Your task to perform on an android device: Is it going to rain this weekend? Image 0: 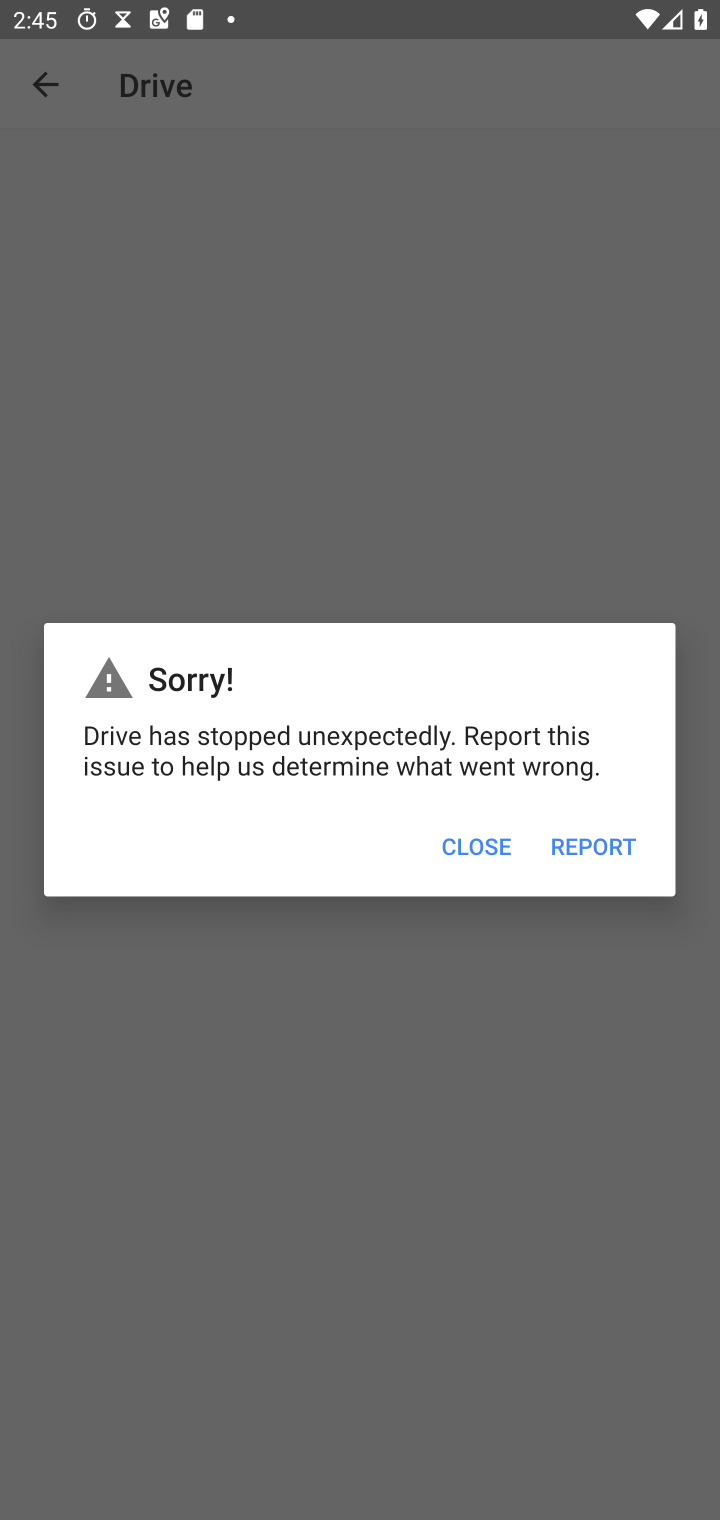
Step 0: press home button
Your task to perform on an android device: Is it going to rain this weekend? Image 1: 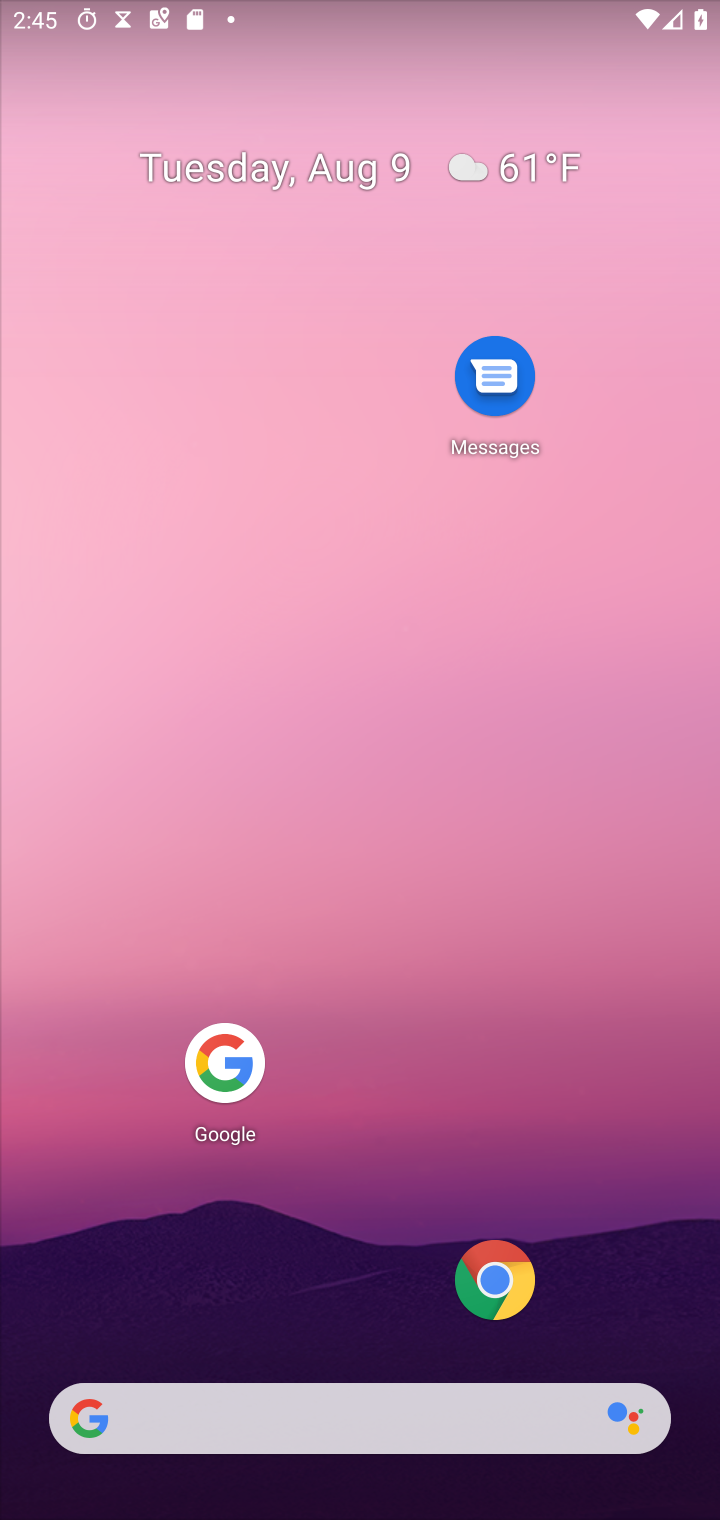
Step 1: click (252, 1412)
Your task to perform on an android device: Is it going to rain this weekend? Image 2: 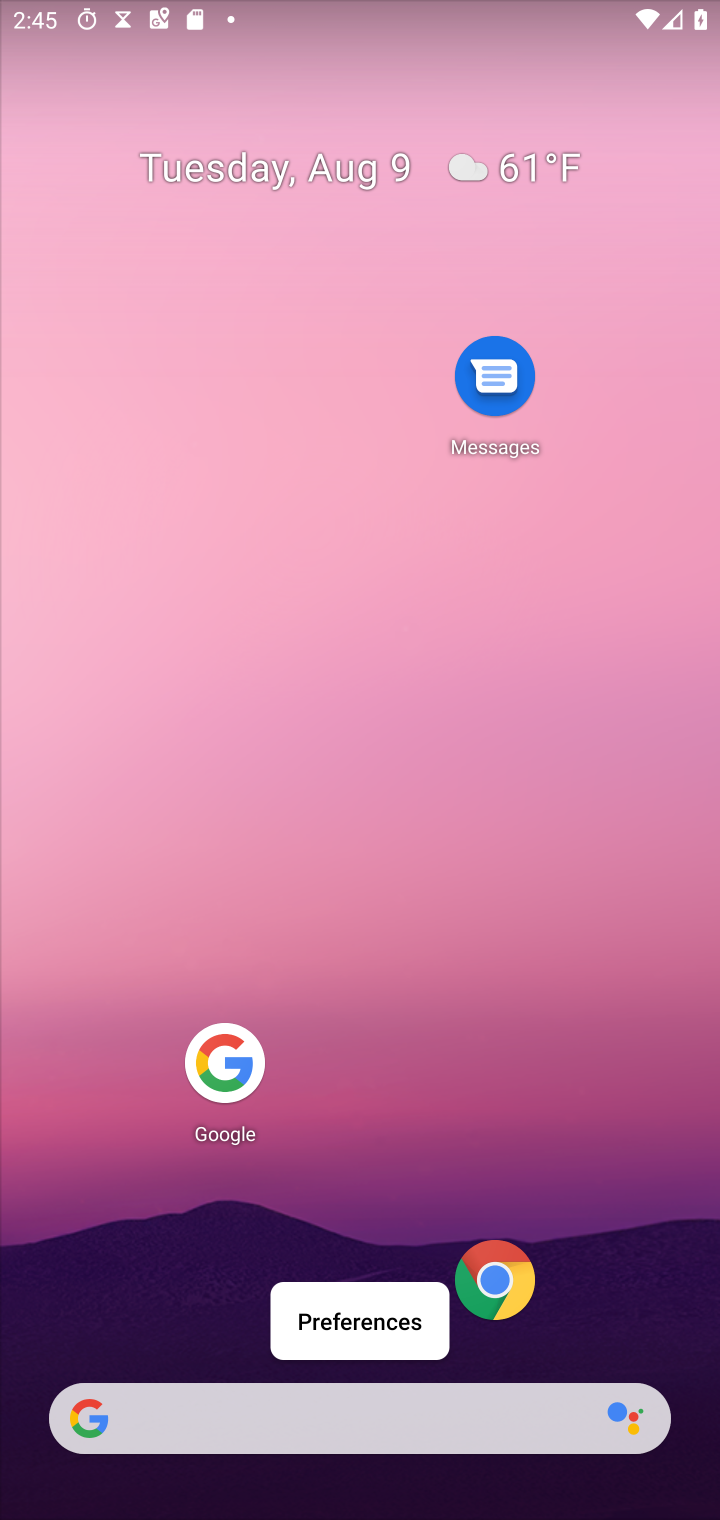
Step 2: click (280, 1419)
Your task to perform on an android device: Is it going to rain this weekend? Image 3: 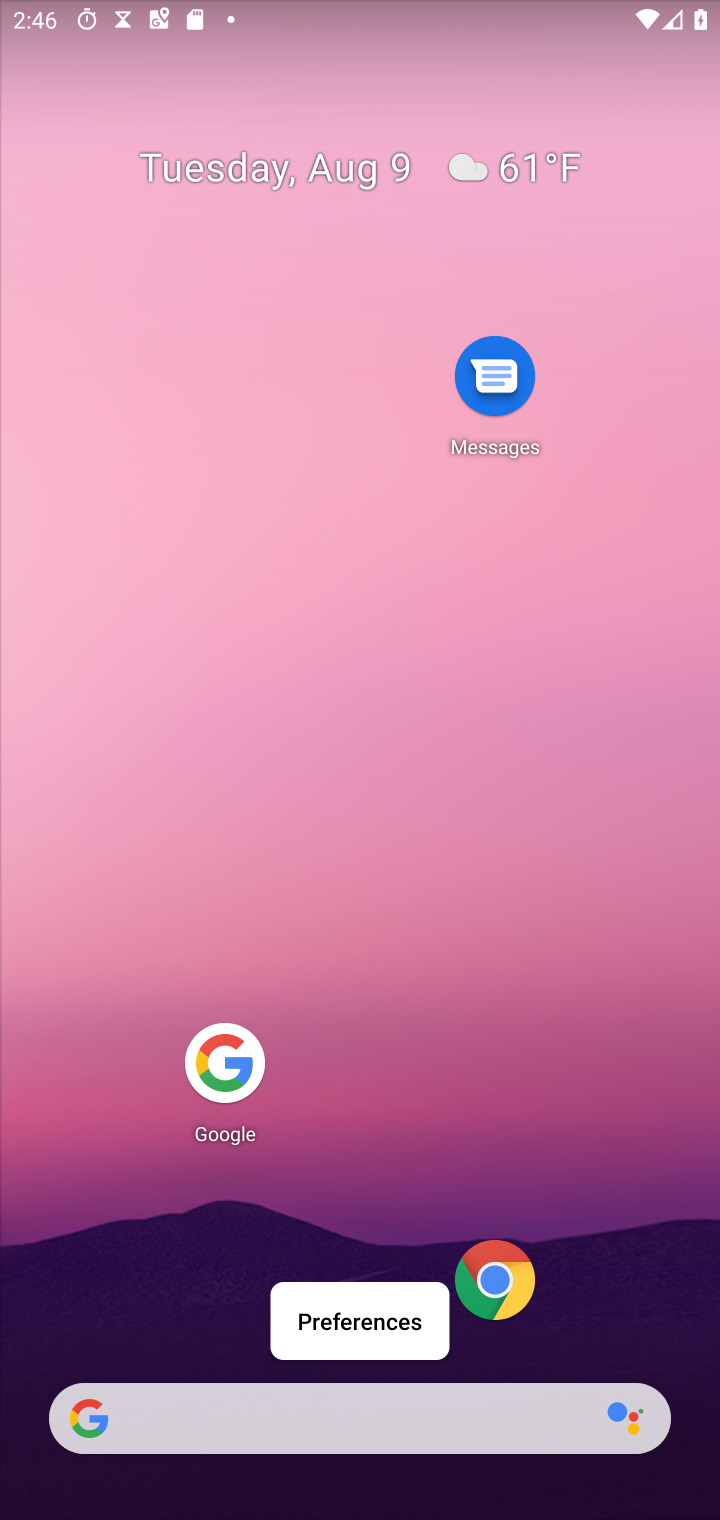
Step 3: click (283, 1401)
Your task to perform on an android device: Is it going to rain this weekend? Image 4: 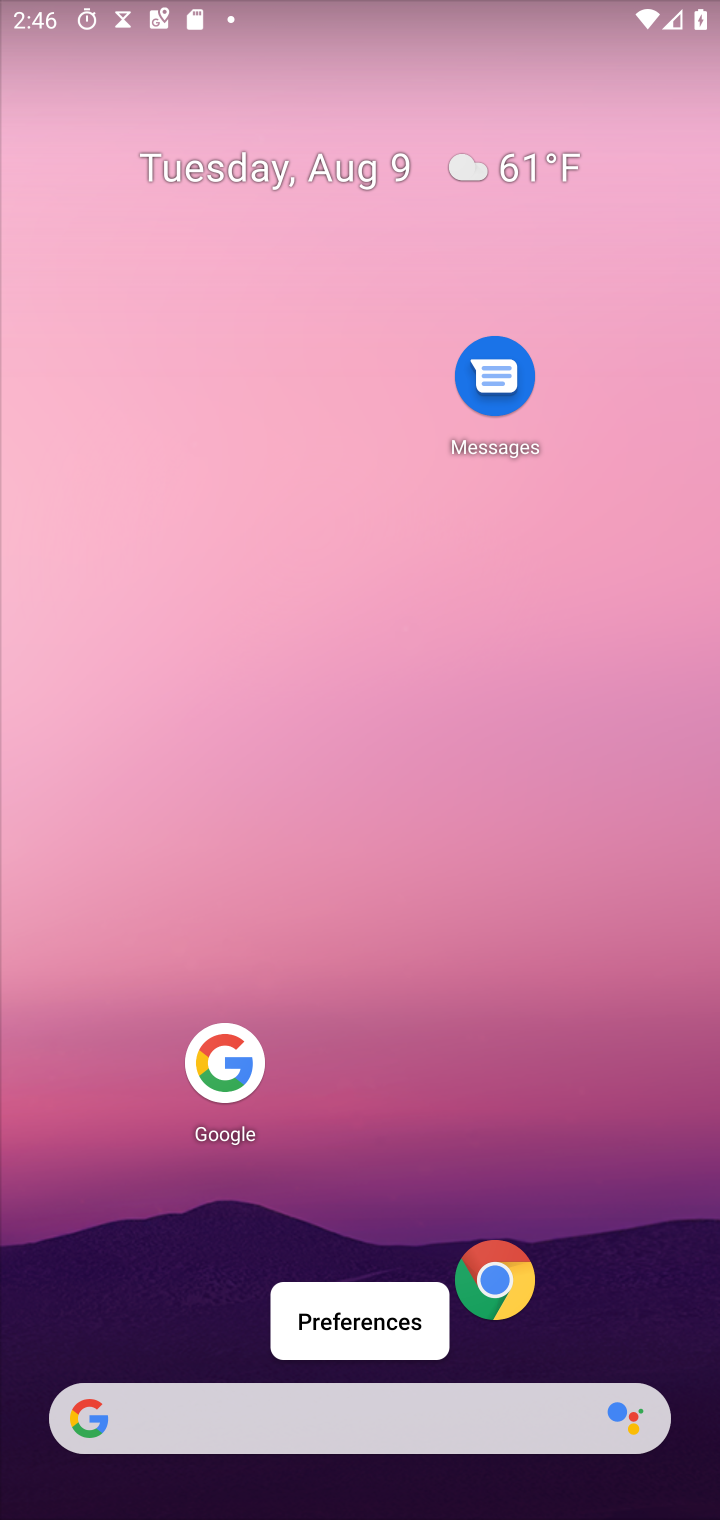
Step 4: click (289, 1402)
Your task to perform on an android device: Is it going to rain this weekend? Image 5: 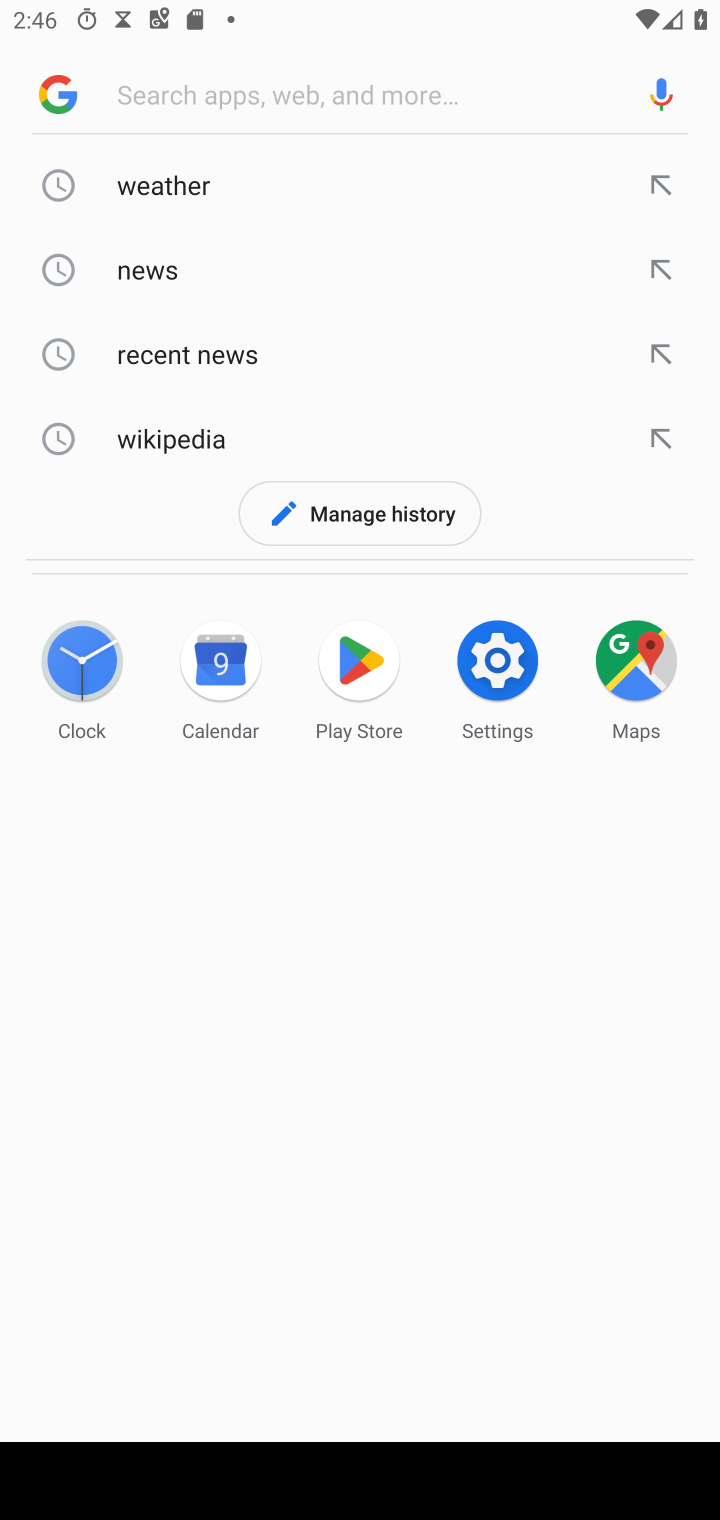
Step 5: click (222, 177)
Your task to perform on an android device: Is it going to rain this weekend? Image 6: 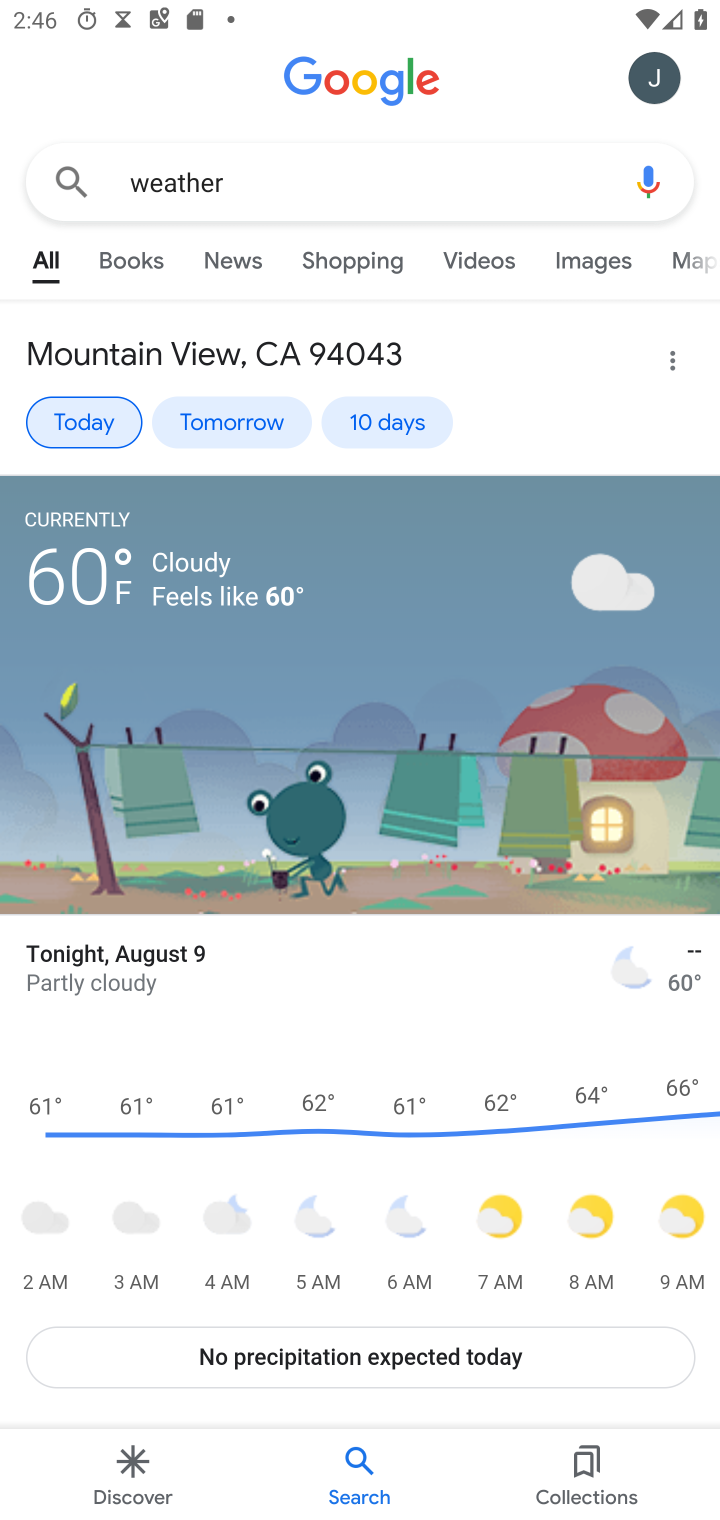
Step 6: click (409, 418)
Your task to perform on an android device: Is it going to rain this weekend? Image 7: 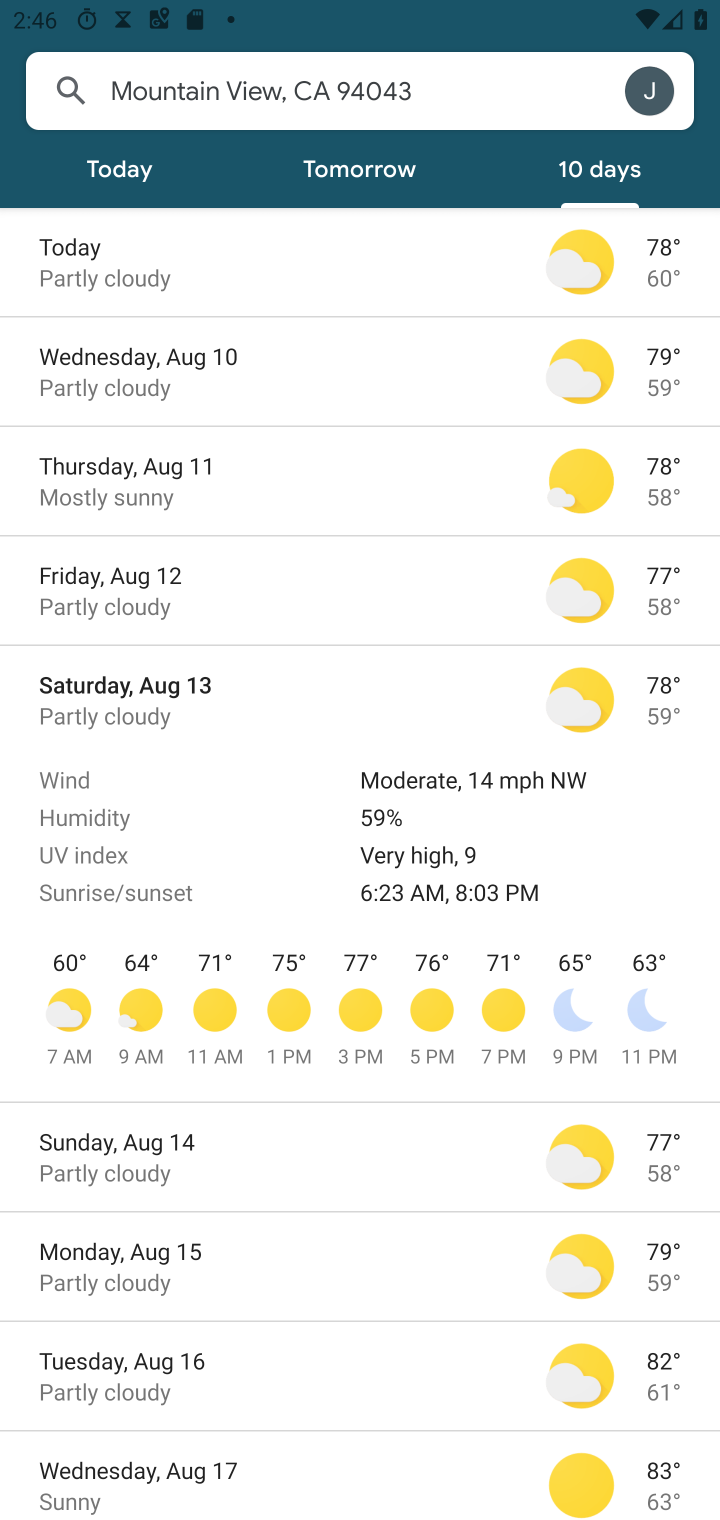
Step 7: task complete